Your task to perform on an android device: open a bookmark in the chrome app Image 0: 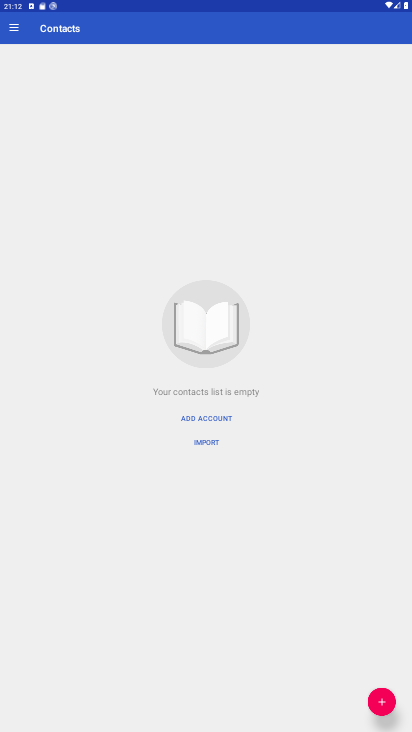
Step 0: press home button
Your task to perform on an android device: open a bookmark in the chrome app Image 1: 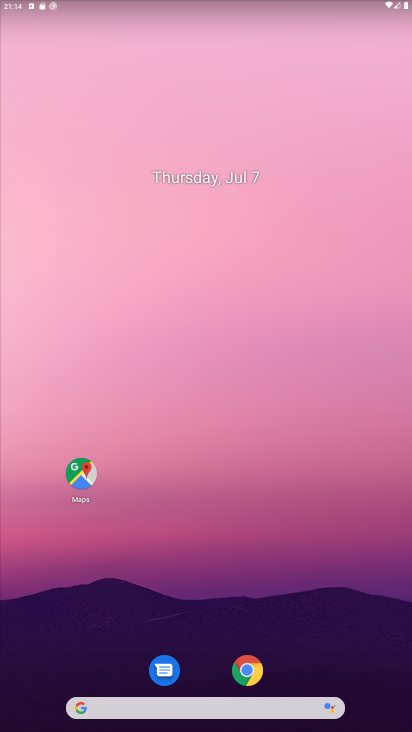
Step 1: task complete